Your task to perform on an android device: Open Google Image 0: 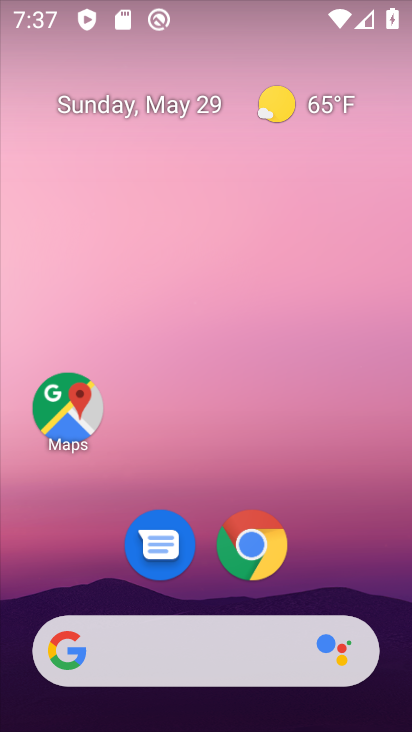
Step 0: drag from (190, 583) to (198, 206)
Your task to perform on an android device: Open Google Image 1: 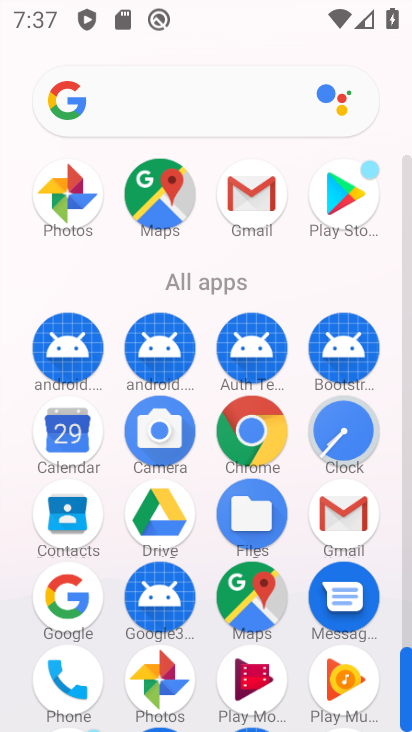
Step 1: drag from (207, 599) to (212, 310)
Your task to perform on an android device: Open Google Image 2: 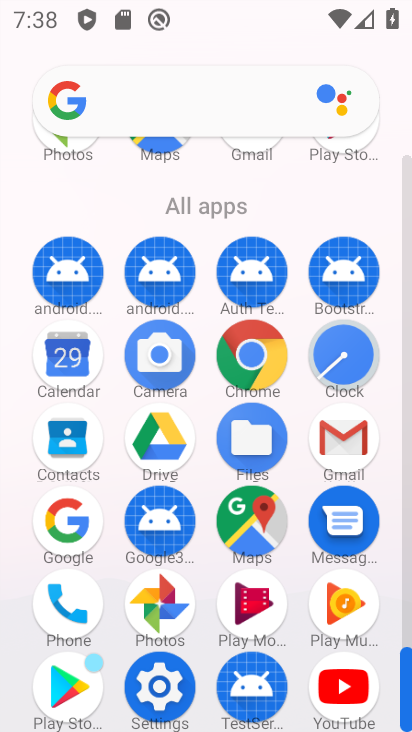
Step 2: click (71, 520)
Your task to perform on an android device: Open Google Image 3: 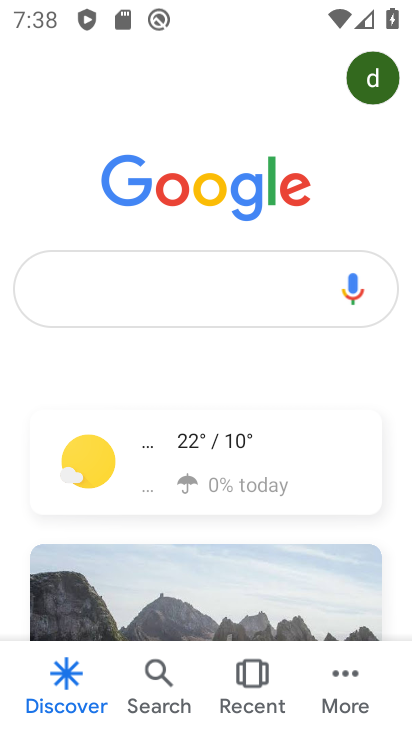
Step 3: task complete